Your task to perform on an android device: change the clock style Image 0: 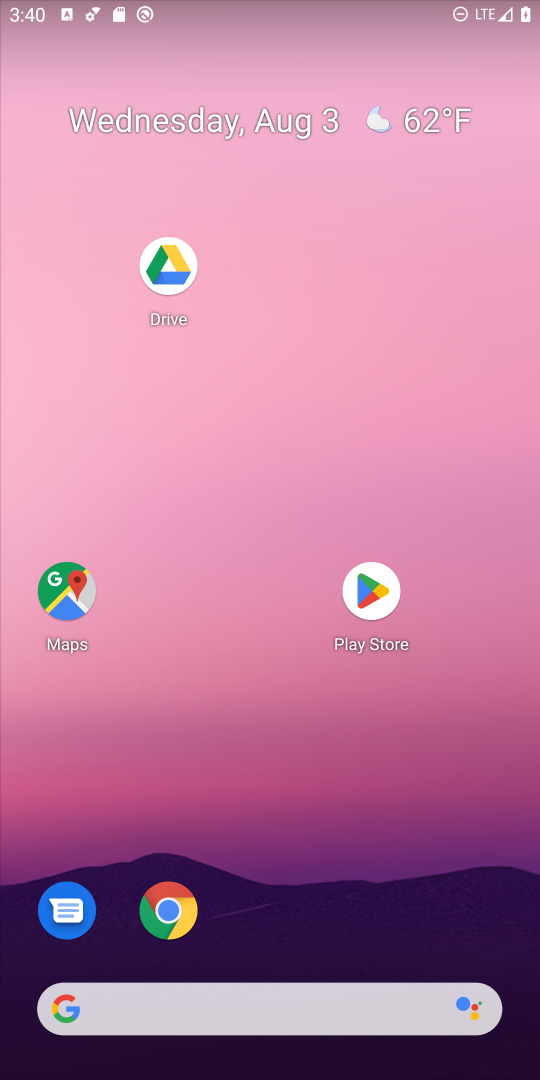
Step 0: drag from (391, 661) to (340, 1)
Your task to perform on an android device: change the clock style Image 1: 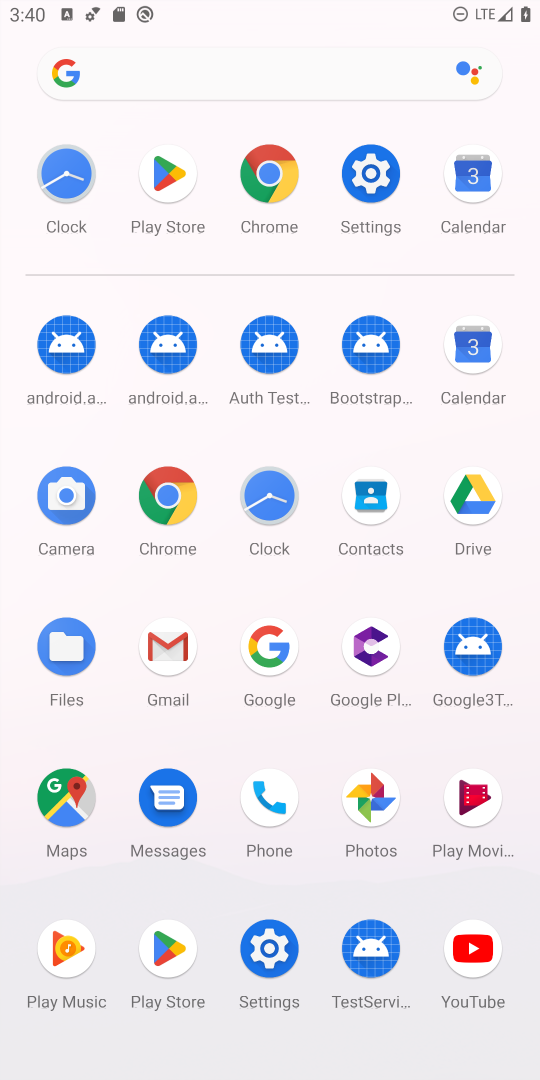
Step 1: click (266, 499)
Your task to perform on an android device: change the clock style Image 2: 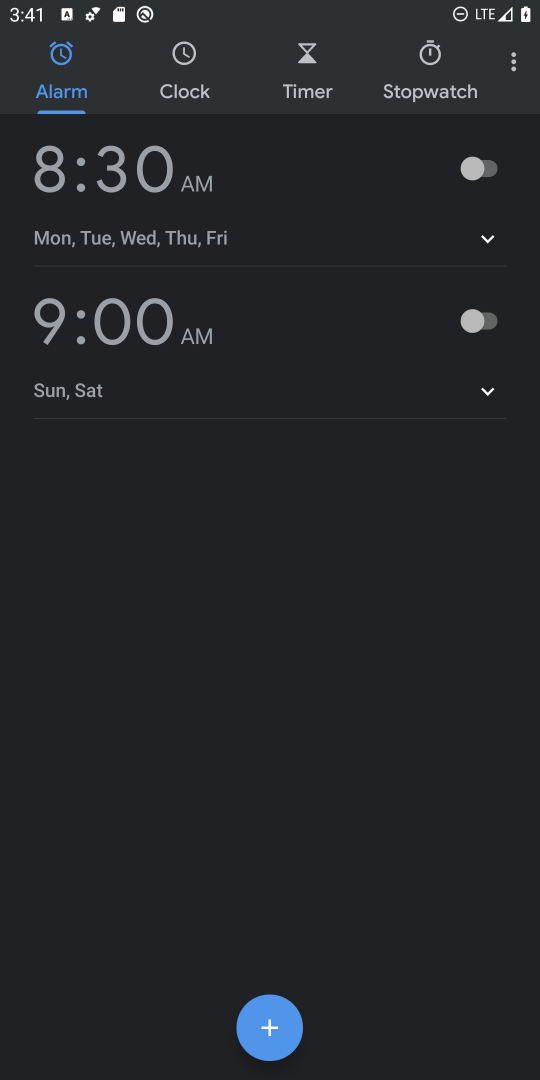
Step 2: click (510, 68)
Your task to perform on an android device: change the clock style Image 3: 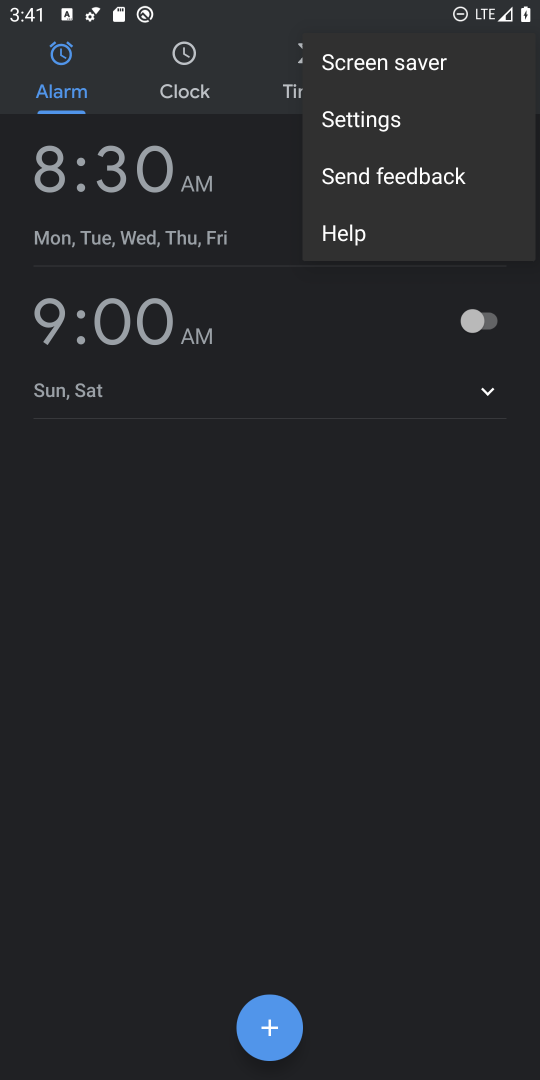
Step 3: click (402, 118)
Your task to perform on an android device: change the clock style Image 4: 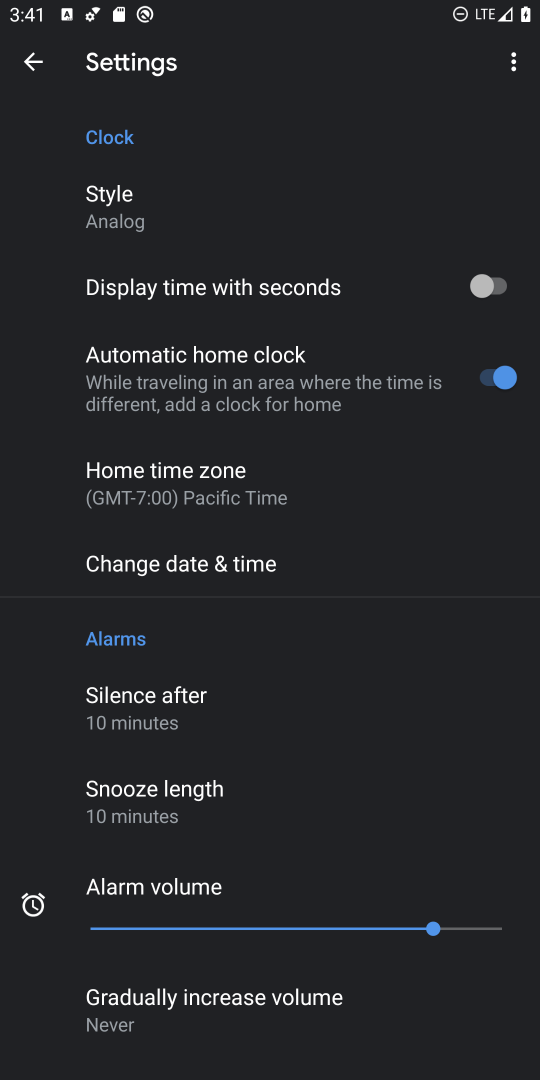
Step 4: click (150, 206)
Your task to perform on an android device: change the clock style Image 5: 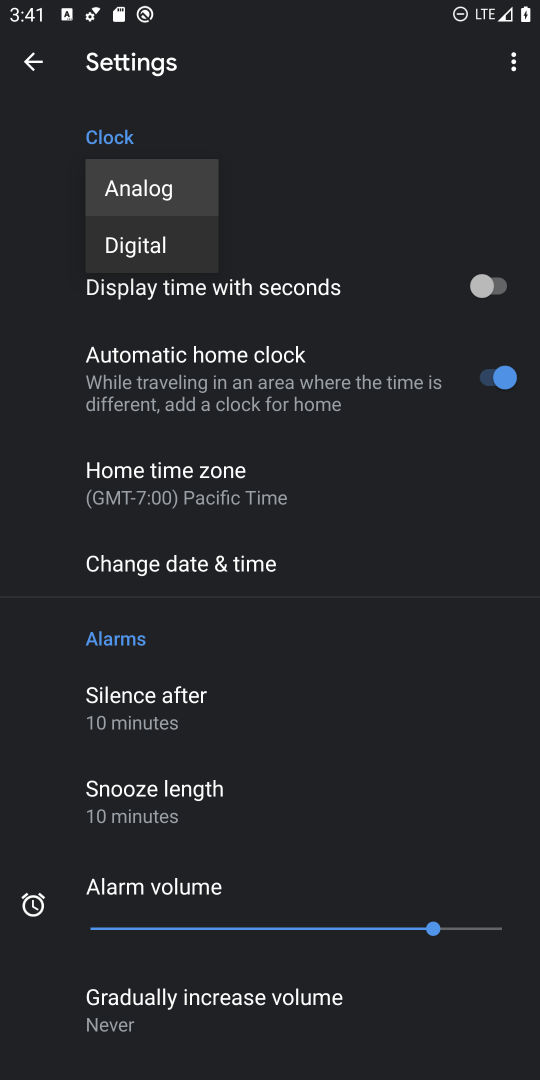
Step 5: click (178, 241)
Your task to perform on an android device: change the clock style Image 6: 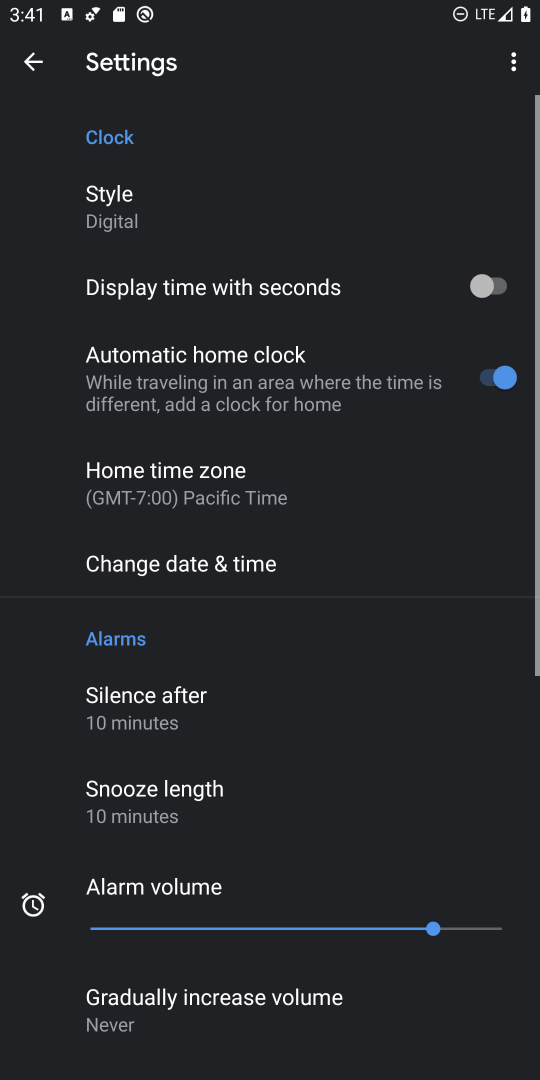
Step 6: task complete